Your task to perform on an android device: Go to Google maps Image 0: 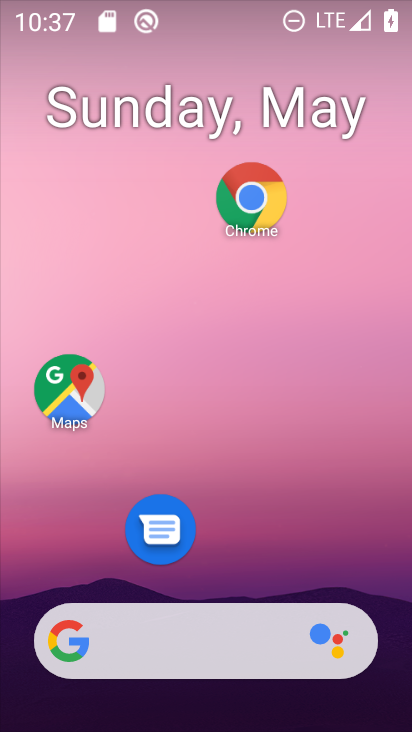
Step 0: drag from (262, 544) to (268, 145)
Your task to perform on an android device: Go to Google maps Image 1: 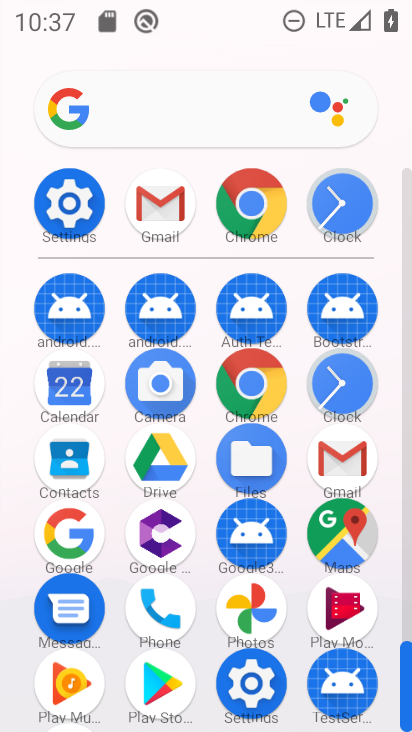
Step 1: click (359, 535)
Your task to perform on an android device: Go to Google maps Image 2: 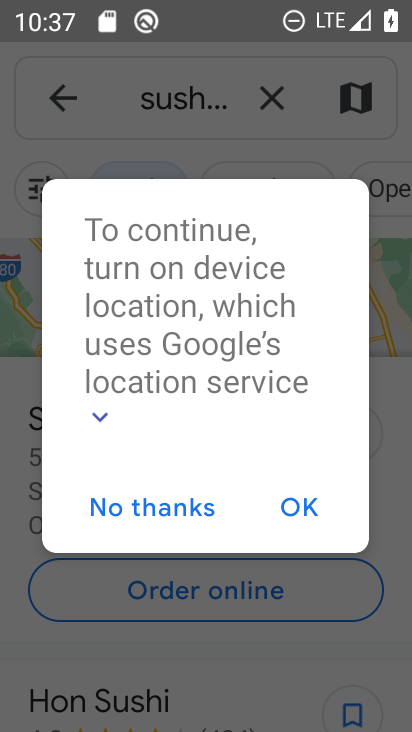
Step 2: click (175, 497)
Your task to perform on an android device: Go to Google maps Image 3: 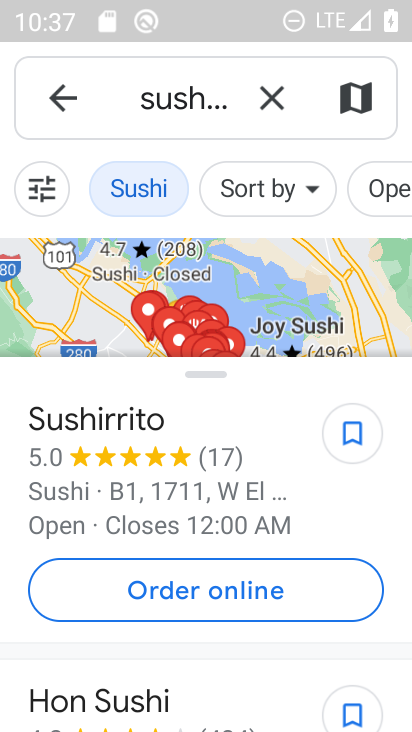
Step 3: click (57, 112)
Your task to perform on an android device: Go to Google maps Image 4: 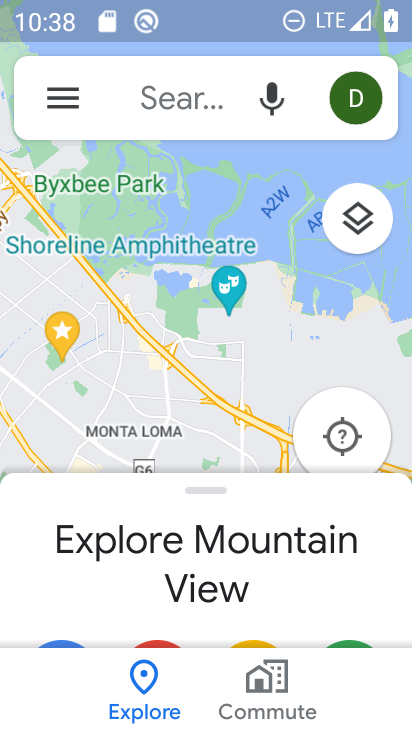
Step 4: task complete